Your task to perform on an android device: Open Google Chrome and open the bookmarks view Image 0: 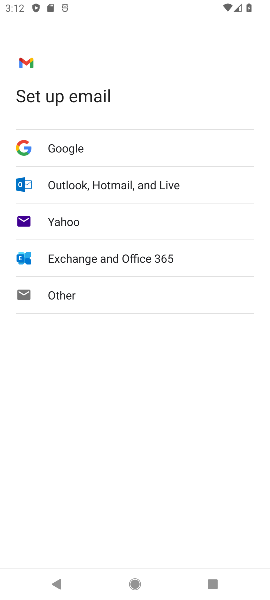
Step 0: press back button
Your task to perform on an android device: Open Google Chrome and open the bookmarks view Image 1: 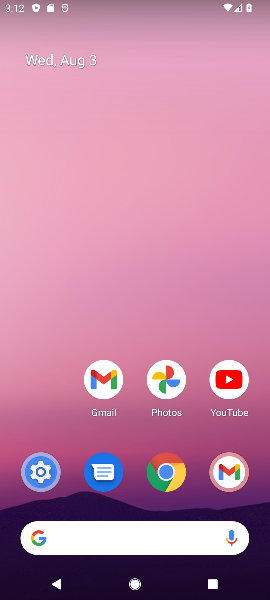
Step 1: click (165, 463)
Your task to perform on an android device: Open Google Chrome and open the bookmarks view Image 2: 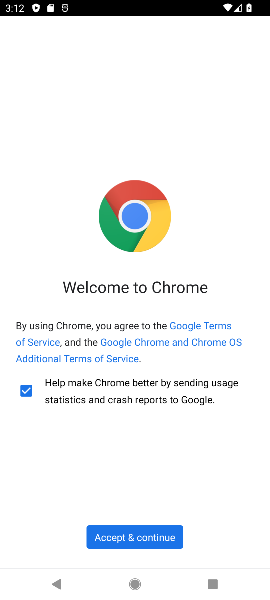
Step 2: click (112, 536)
Your task to perform on an android device: Open Google Chrome and open the bookmarks view Image 3: 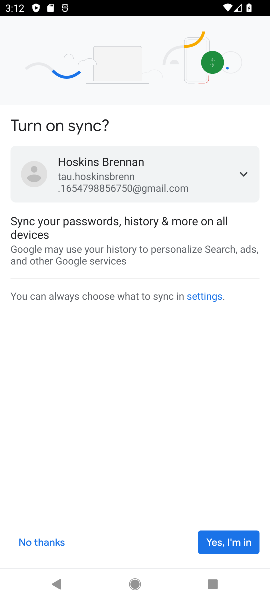
Step 3: click (226, 540)
Your task to perform on an android device: Open Google Chrome and open the bookmarks view Image 4: 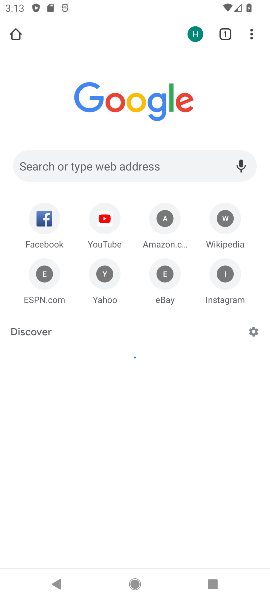
Step 4: task complete